Your task to perform on an android device: open the mobile data screen to see how much data has been used Image 0: 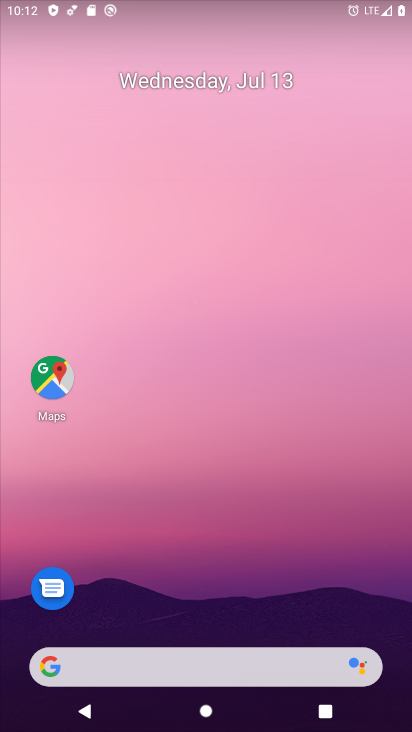
Step 0: drag from (272, 714) to (185, 109)
Your task to perform on an android device: open the mobile data screen to see how much data has been used Image 1: 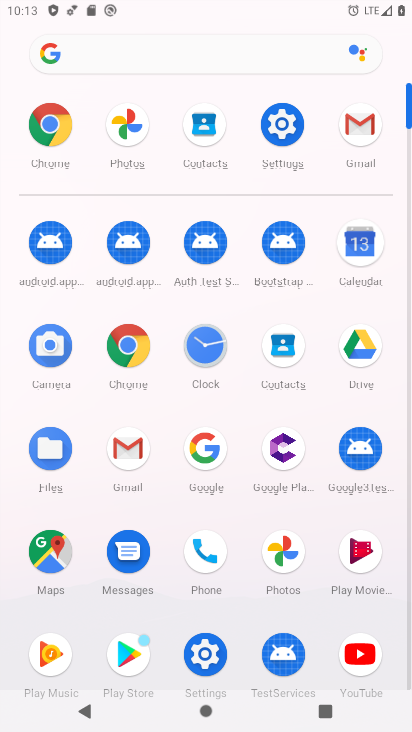
Step 1: click (283, 135)
Your task to perform on an android device: open the mobile data screen to see how much data has been used Image 2: 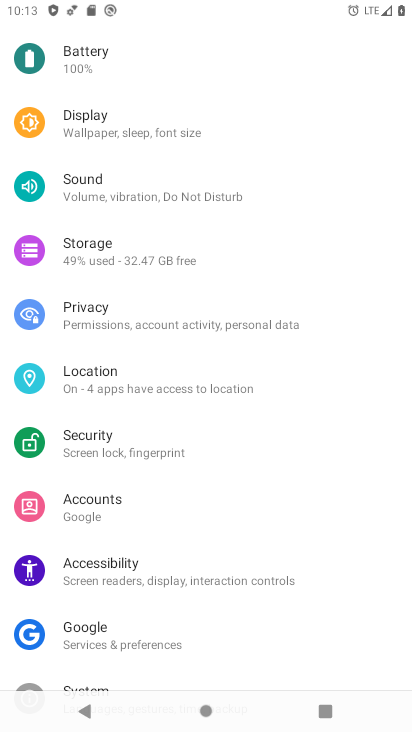
Step 2: drag from (297, 121) to (344, 724)
Your task to perform on an android device: open the mobile data screen to see how much data has been used Image 3: 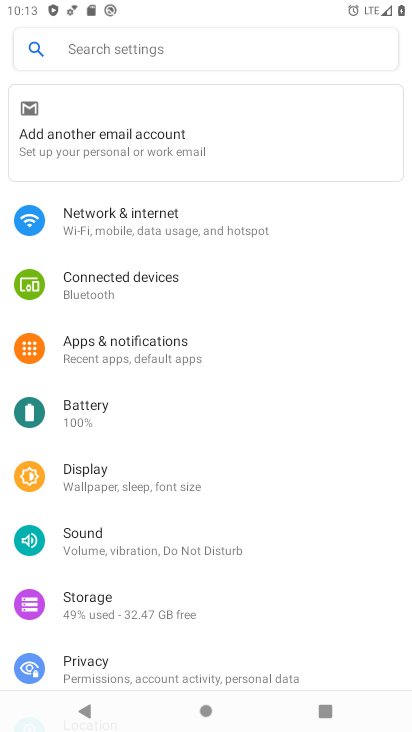
Step 3: click (196, 222)
Your task to perform on an android device: open the mobile data screen to see how much data has been used Image 4: 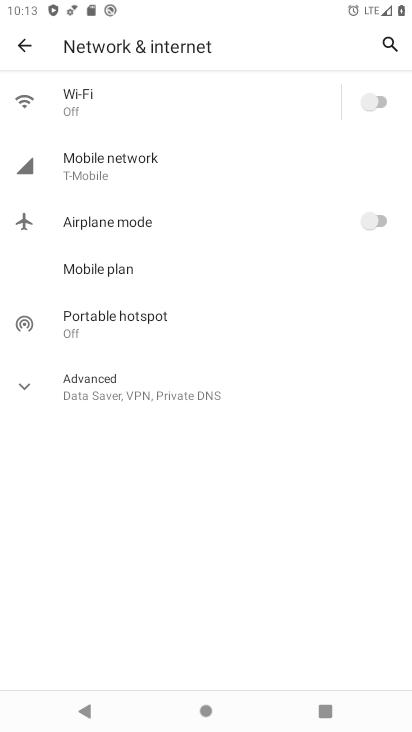
Step 4: click (82, 163)
Your task to perform on an android device: open the mobile data screen to see how much data has been used Image 5: 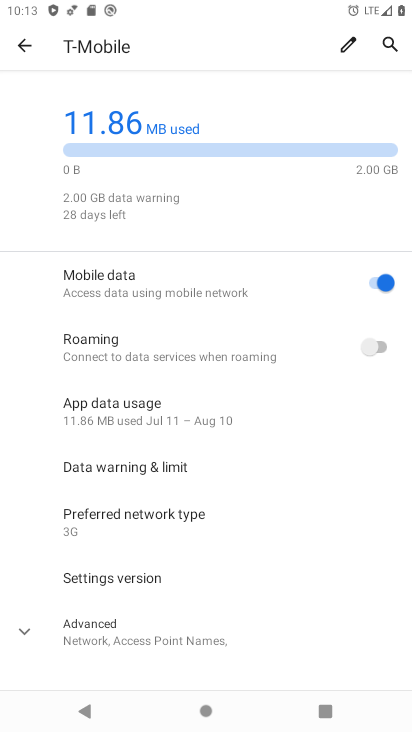
Step 5: click (340, 153)
Your task to perform on an android device: open the mobile data screen to see how much data has been used Image 6: 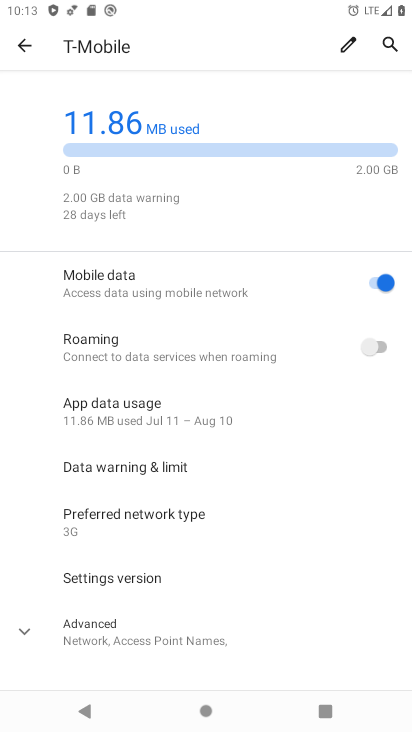
Step 6: click (160, 420)
Your task to perform on an android device: open the mobile data screen to see how much data has been used Image 7: 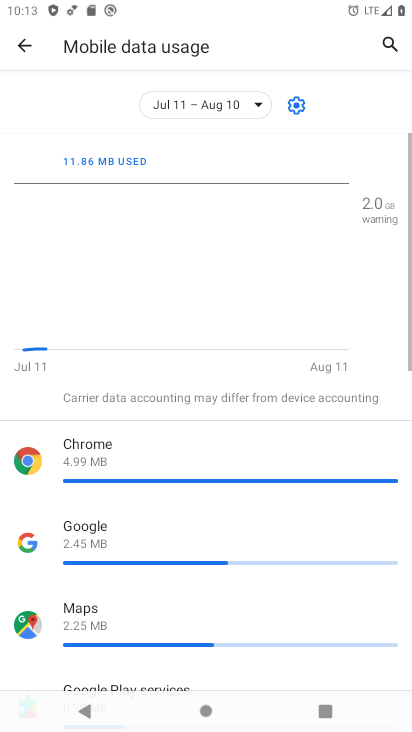
Step 7: task complete